Your task to perform on an android device: Open network settings Image 0: 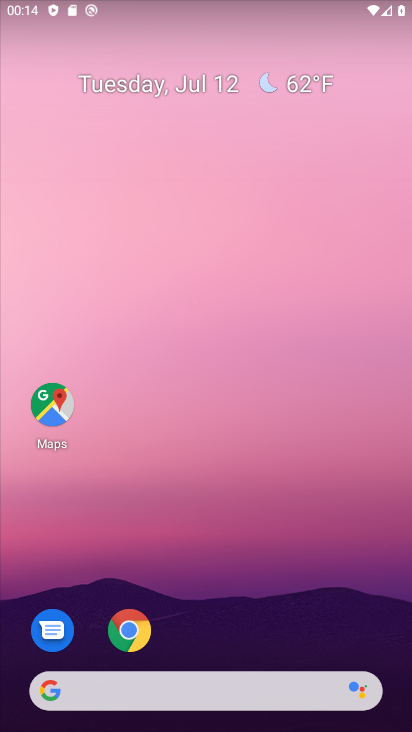
Step 0: drag from (232, 627) to (231, 93)
Your task to perform on an android device: Open network settings Image 1: 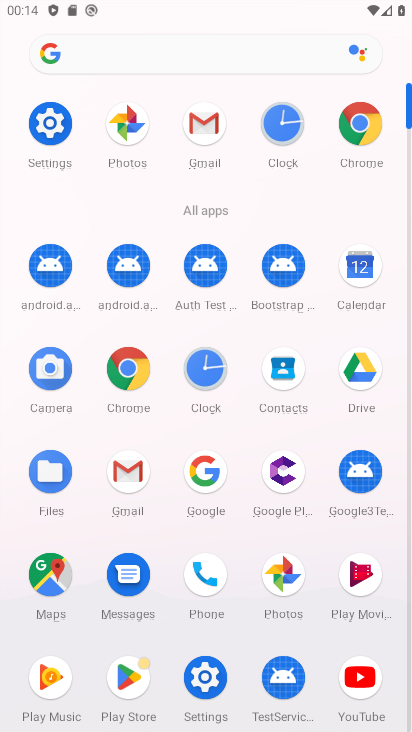
Step 1: click (48, 125)
Your task to perform on an android device: Open network settings Image 2: 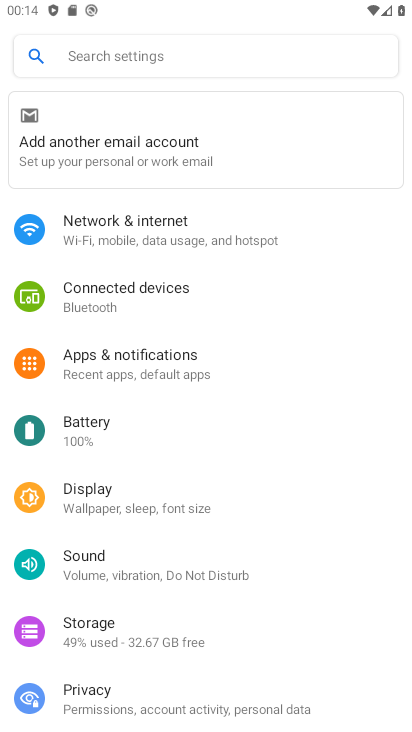
Step 2: click (139, 227)
Your task to perform on an android device: Open network settings Image 3: 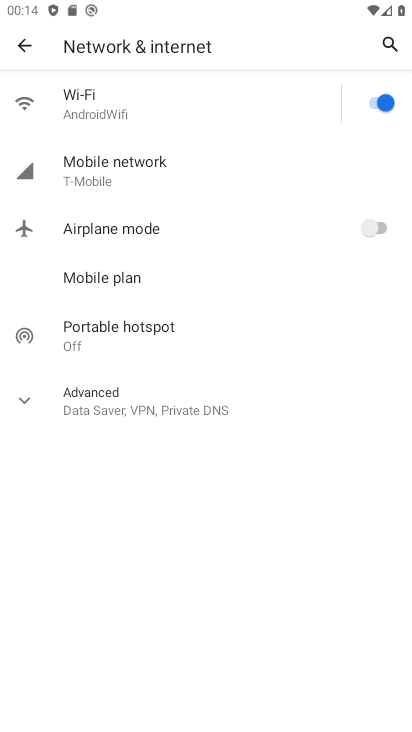
Step 3: click (130, 160)
Your task to perform on an android device: Open network settings Image 4: 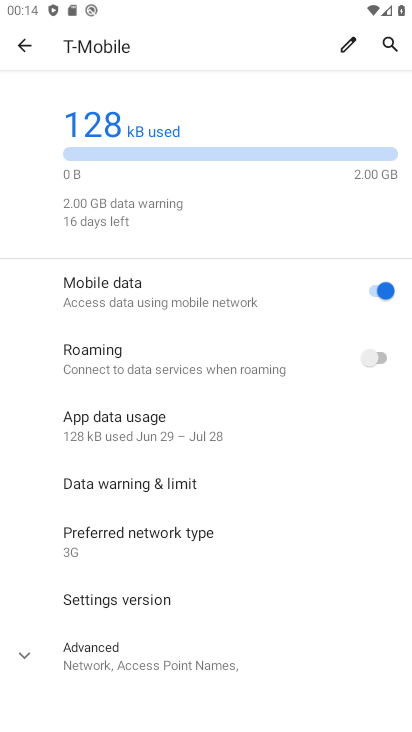
Step 4: task complete